Your task to perform on an android device: Open the calendar and show me this week's events? Image 0: 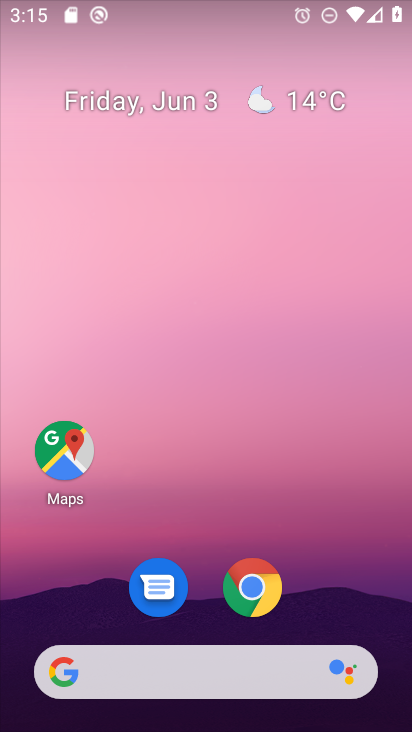
Step 0: drag from (196, 727) to (194, 49)
Your task to perform on an android device: Open the calendar and show me this week's events? Image 1: 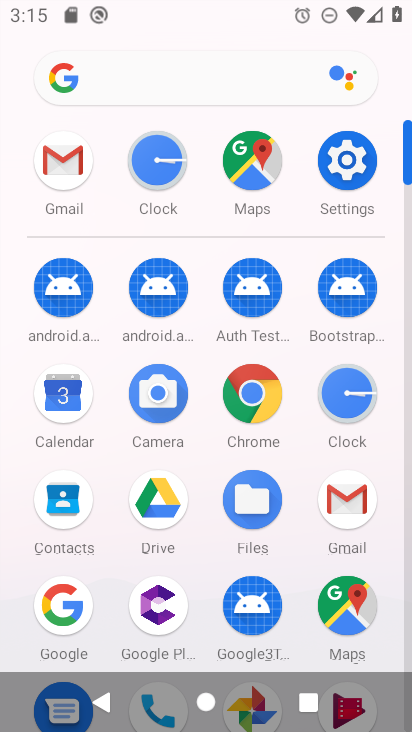
Step 1: click (64, 399)
Your task to perform on an android device: Open the calendar and show me this week's events? Image 2: 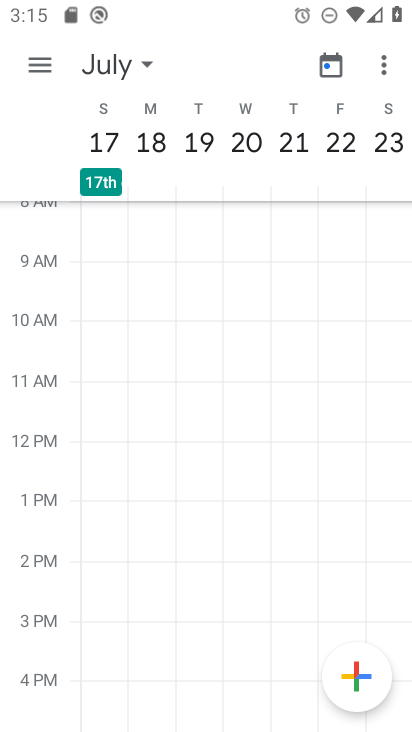
Step 2: click (146, 68)
Your task to perform on an android device: Open the calendar and show me this week's events? Image 3: 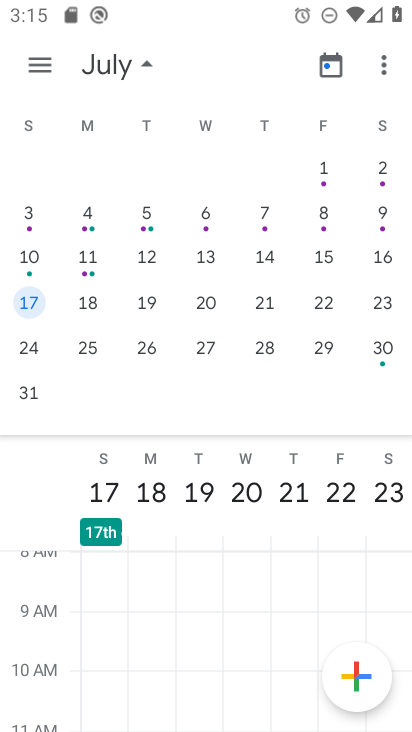
Step 3: drag from (54, 251) to (310, 278)
Your task to perform on an android device: Open the calendar and show me this week's events? Image 4: 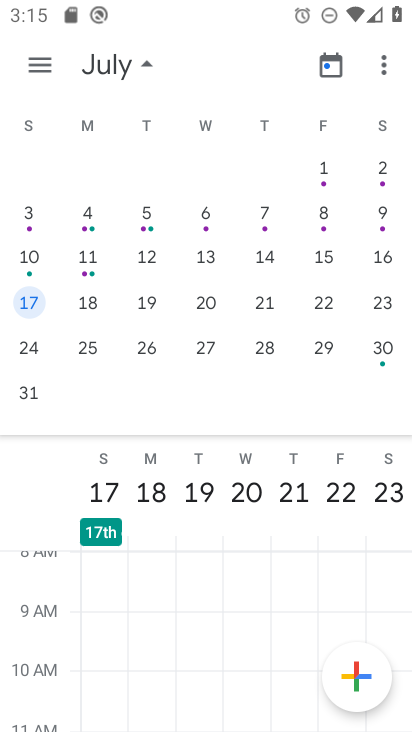
Step 4: drag from (56, 284) to (408, 272)
Your task to perform on an android device: Open the calendar and show me this week's events? Image 5: 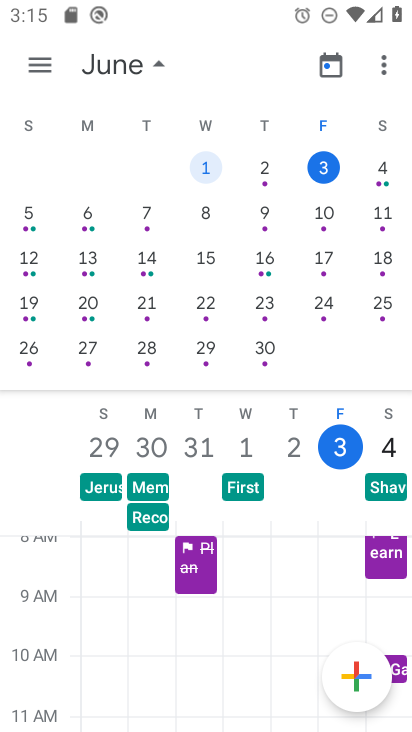
Step 5: click (35, 68)
Your task to perform on an android device: Open the calendar and show me this week's events? Image 6: 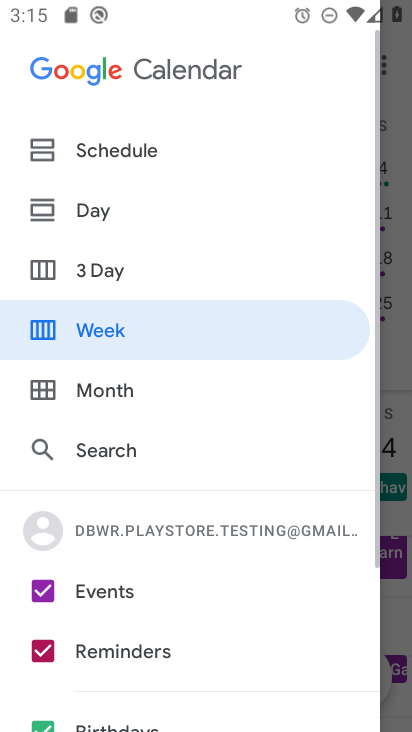
Step 6: click (93, 335)
Your task to perform on an android device: Open the calendar and show me this week's events? Image 7: 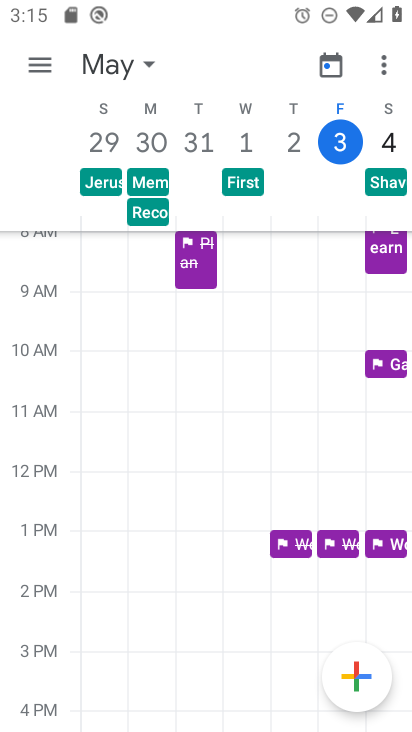
Step 7: task complete